Your task to perform on an android device: Go to Yahoo.com Image 0: 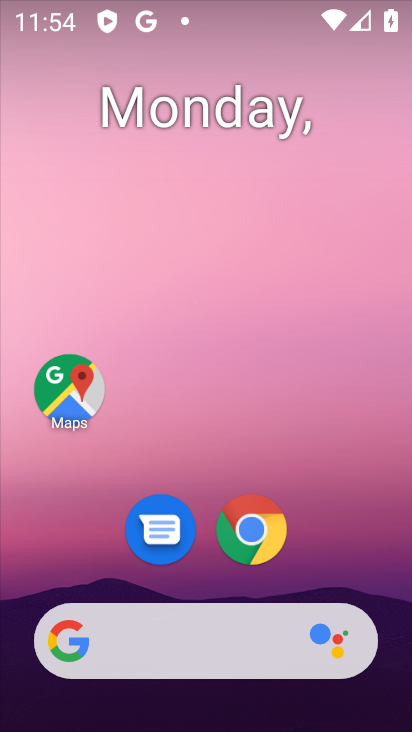
Step 0: click (248, 533)
Your task to perform on an android device: Go to Yahoo.com Image 1: 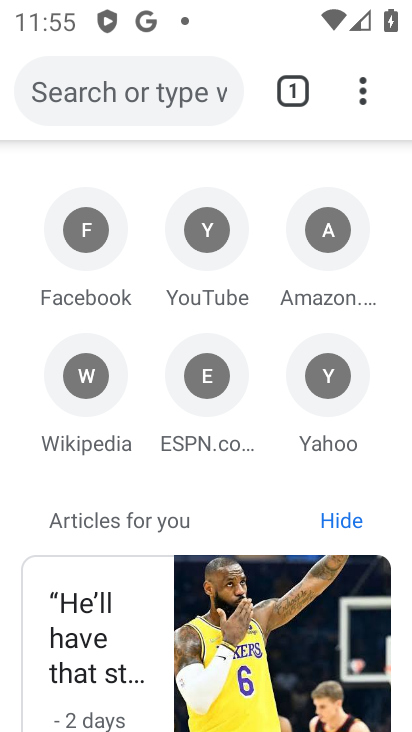
Step 1: click (328, 387)
Your task to perform on an android device: Go to Yahoo.com Image 2: 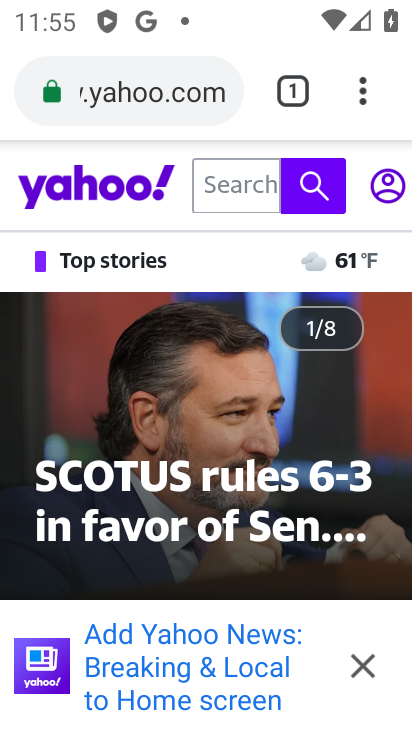
Step 2: task complete